Your task to perform on an android device: change the clock display to digital Image 0: 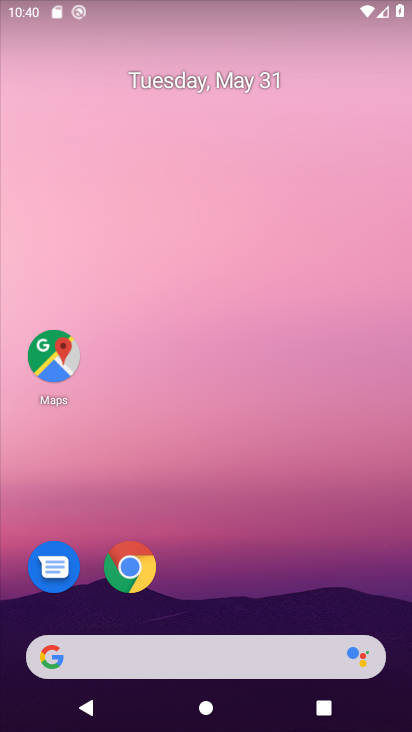
Step 0: drag from (192, 617) to (187, 123)
Your task to perform on an android device: change the clock display to digital Image 1: 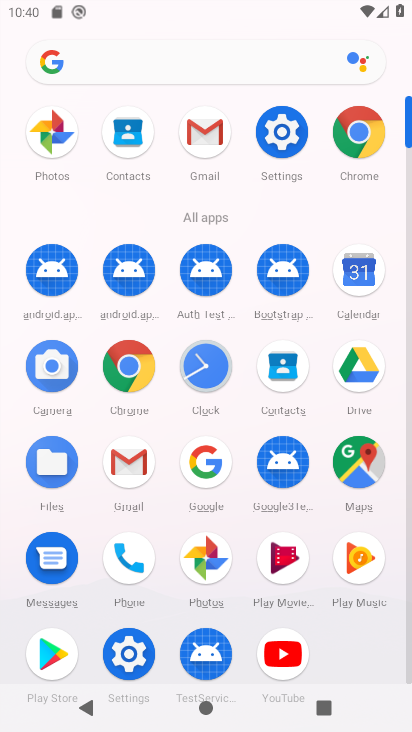
Step 1: click (202, 355)
Your task to perform on an android device: change the clock display to digital Image 2: 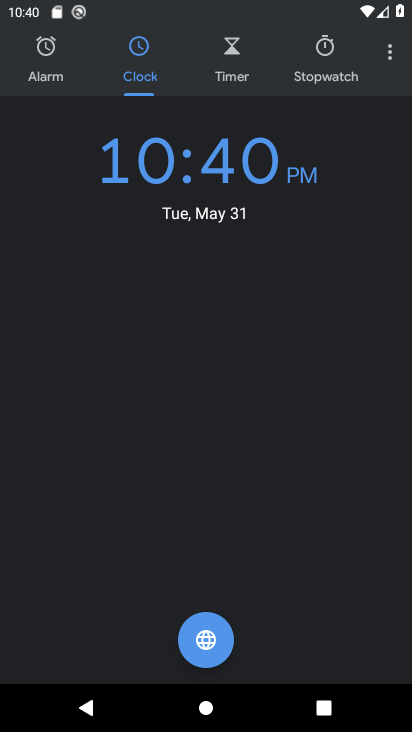
Step 2: click (395, 55)
Your task to perform on an android device: change the clock display to digital Image 3: 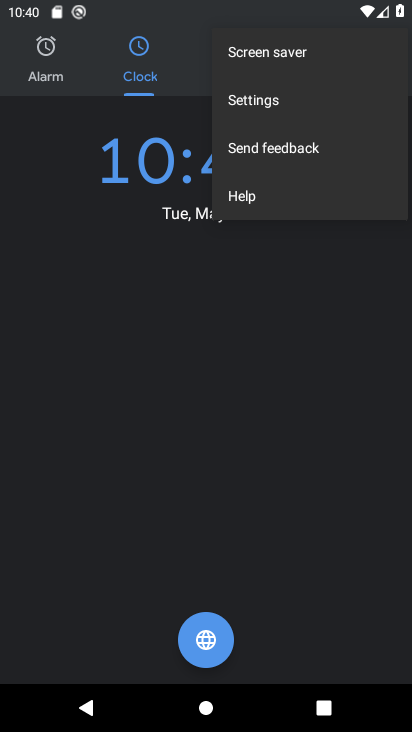
Step 3: click (261, 104)
Your task to perform on an android device: change the clock display to digital Image 4: 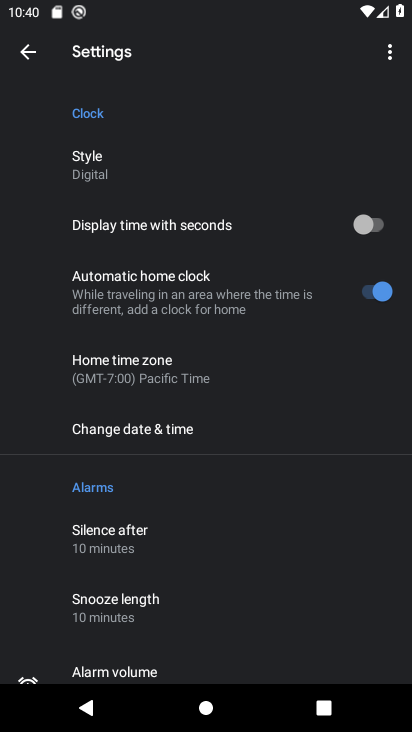
Step 4: task complete